Your task to perform on an android device: find photos in the google photos app Image 0: 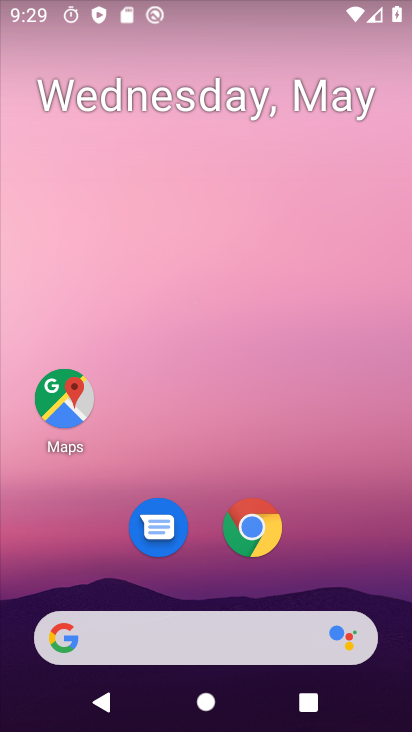
Step 0: drag from (357, 579) to (347, 84)
Your task to perform on an android device: find photos in the google photos app Image 1: 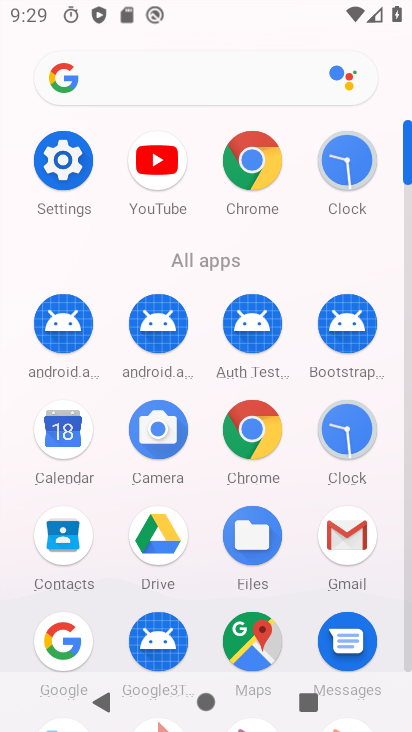
Step 1: drag from (293, 285) to (305, 59)
Your task to perform on an android device: find photos in the google photos app Image 2: 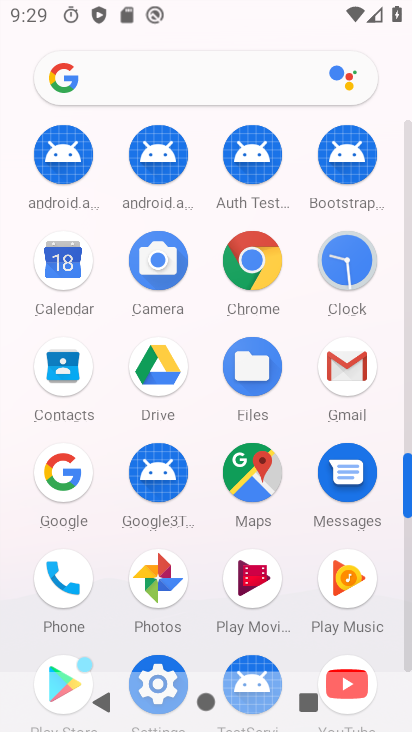
Step 2: click (164, 581)
Your task to perform on an android device: find photos in the google photos app Image 3: 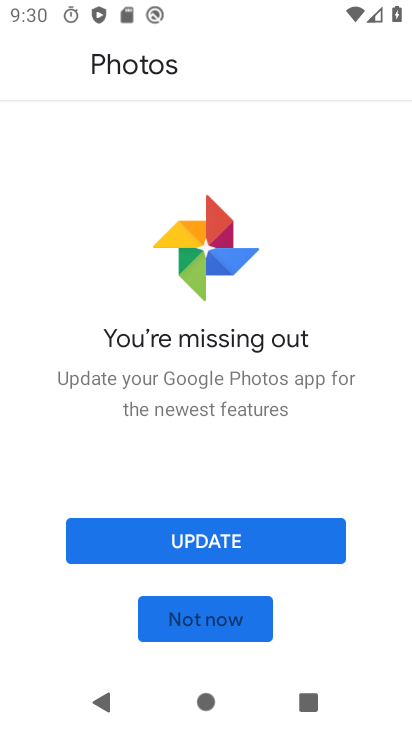
Step 3: click (252, 544)
Your task to perform on an android device: find photos in the google photos app Image 4: 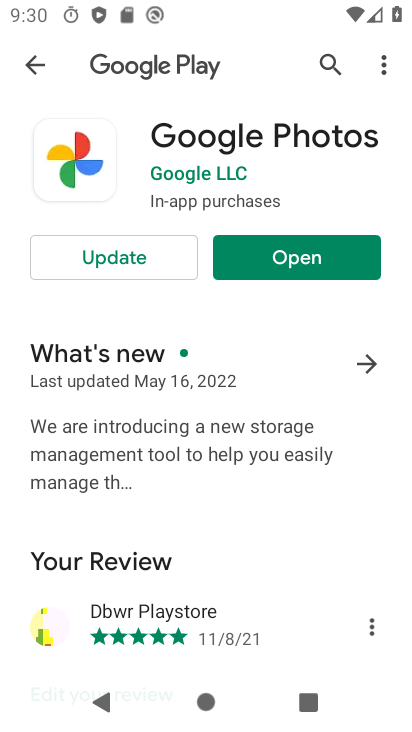
Step 4: click (153, 259)
Your task to perform on an android device: find photos in the google photos app Image 5: 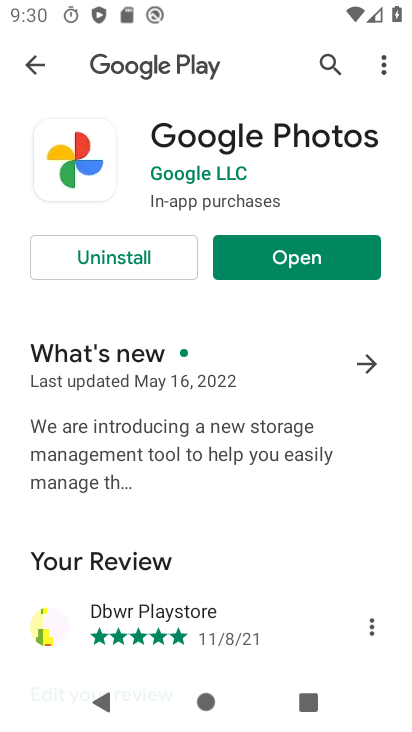
Step 5: click (335, 247)
Your task to perform on an android device: find photos in the google photos app Image 6: 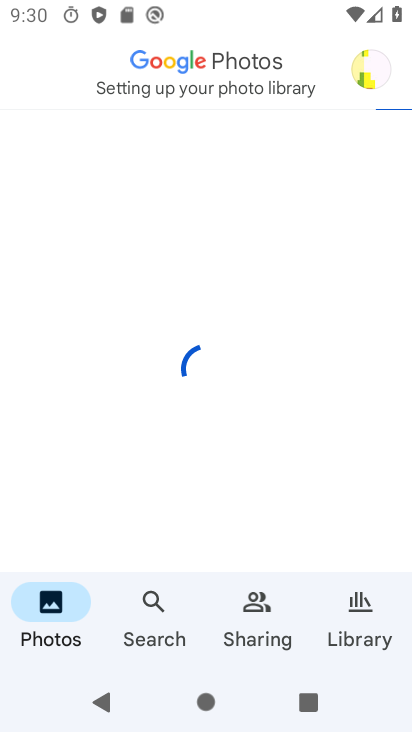
Step 6: click (65, 602)
Your task to perform on an android device: find photos in the google photos app Image 7: 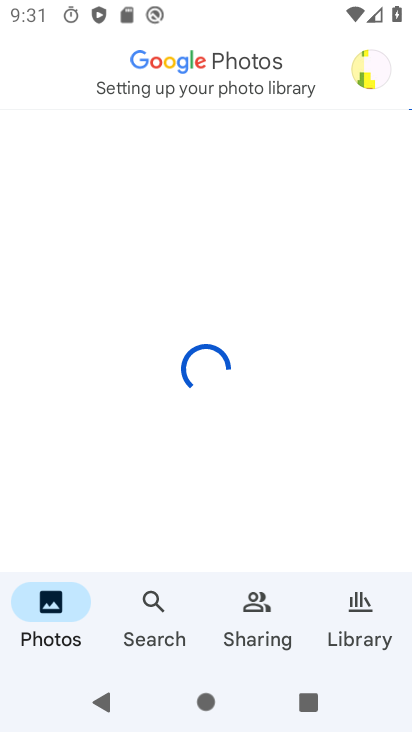
Step 7: task complete